Your task to perform on an android device: Go to Reddit.com Image 0: 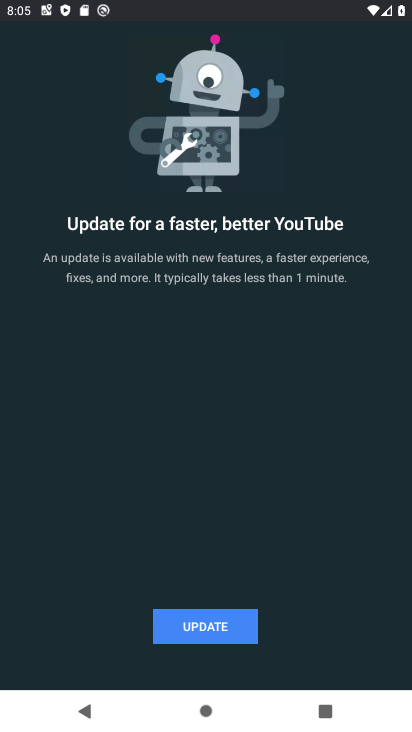
Step 0: press home button
Your task to perform on an android device: Go to Reddit.com Image 1: 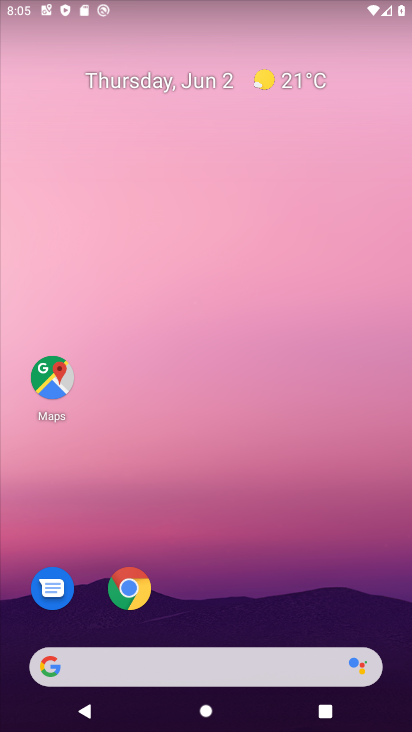
Step 1: drag from (201, 600) to (202, 200)
Your task to perform on an android device: Go to Reddit.com Image 2: 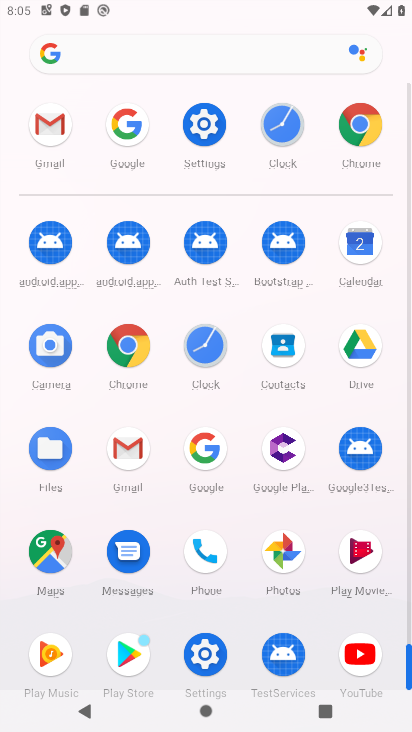
Step 2: click (375, 131)
Your task to perform on an android device: Go to Reddit.com Image 3: 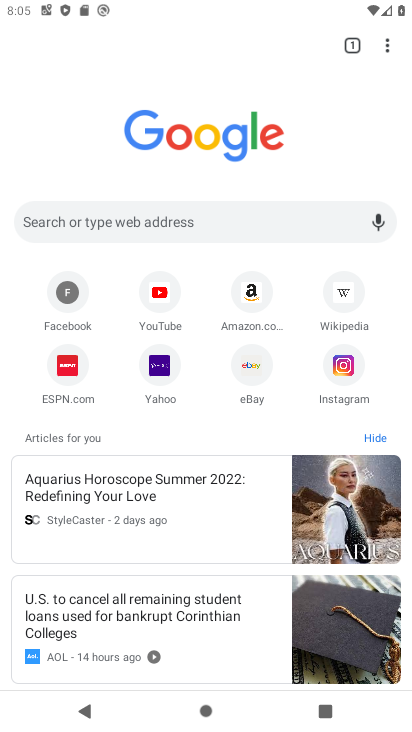
Step 3: click (257, 231)
Your task to perform on an android device: Go to Reddit.com Image 4: 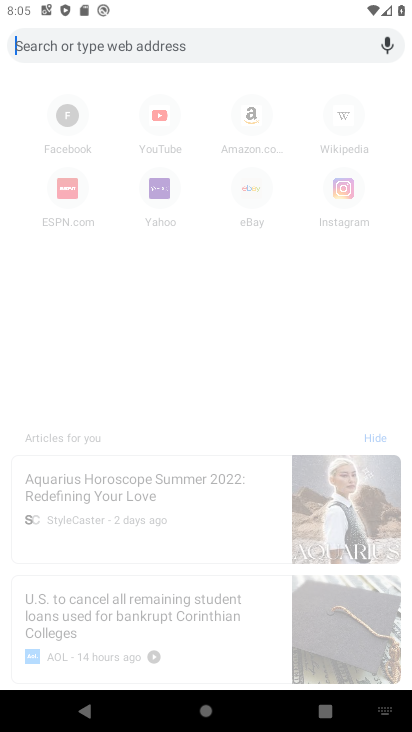
Step 4: type "reddit "
Your task to perform on an android device: Go to Reddit.com Image 5: 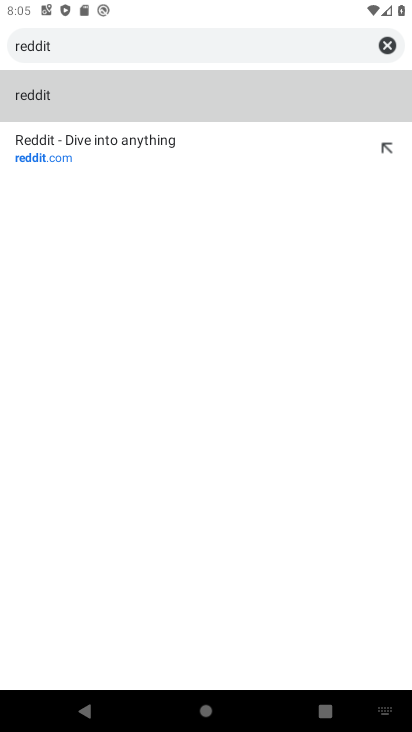
Step 5: click (173, 157)
Your task to perform on an android device: Go to Reddit.com Image 6: 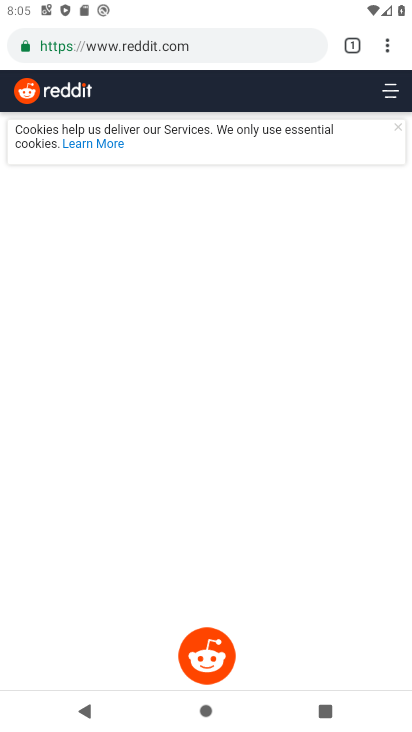
Step 6: task complete